Your task to perform on an android device: manage bookmarks in the chrome app Image 0: 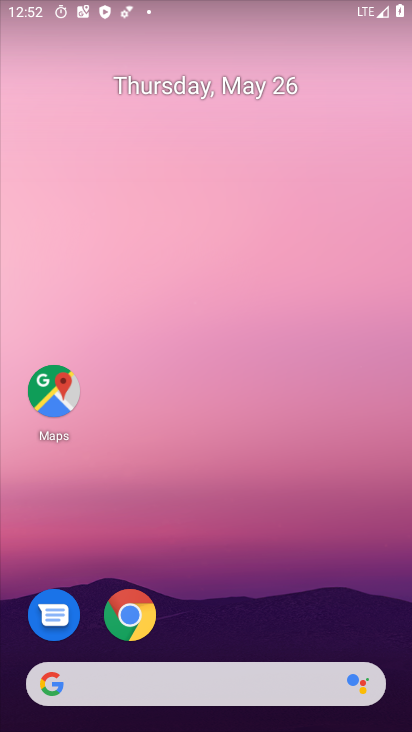
Step 0: drag from (236, 618) to (187, 102)
Your task to perform on an android device: manage bookmarks in the chrome app Image 1: 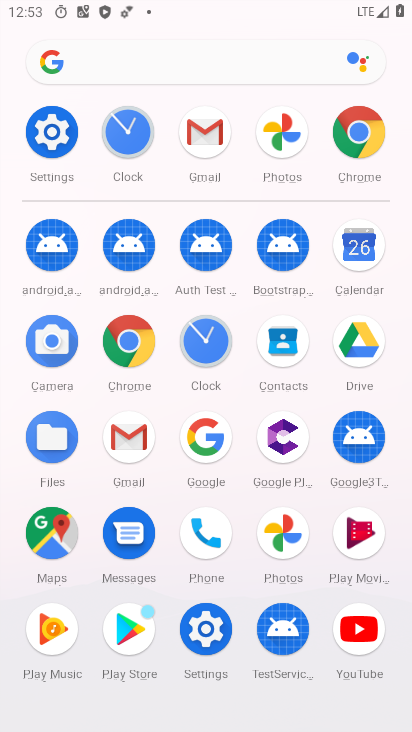
Step 1: click (360, 128)
Your task to perform on an android device: manage bookmarks in the chrome app Image 2: 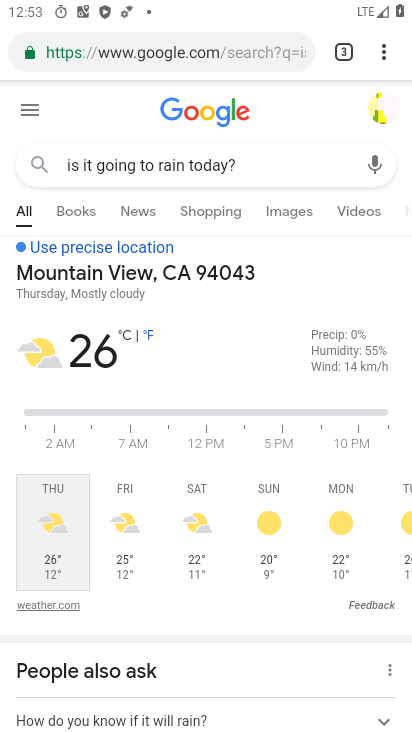
Step 2: click (393, 41)
Your task to perform on an android device: manage bookmarks in the chrome app Image 3: 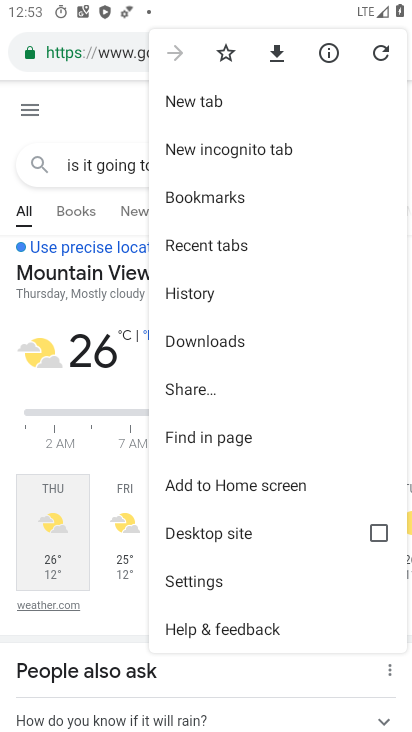
Step 3: click (283, 199)
Your task to perform on an android device: manage bookmarks in the chrome app Image 4: 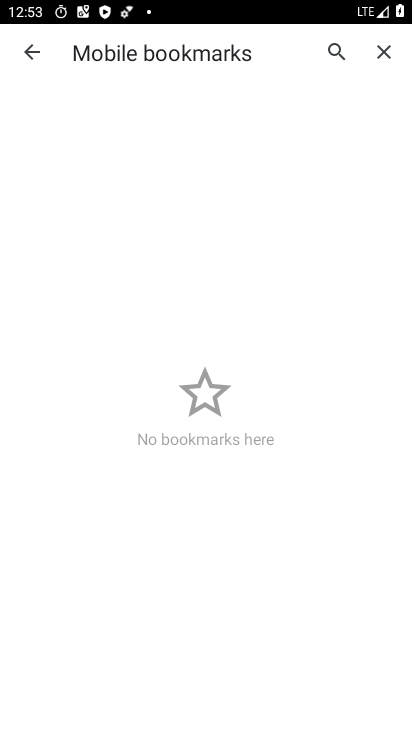
Step 4: task complete